Your task to perform on an android device: check google app version Image 0: 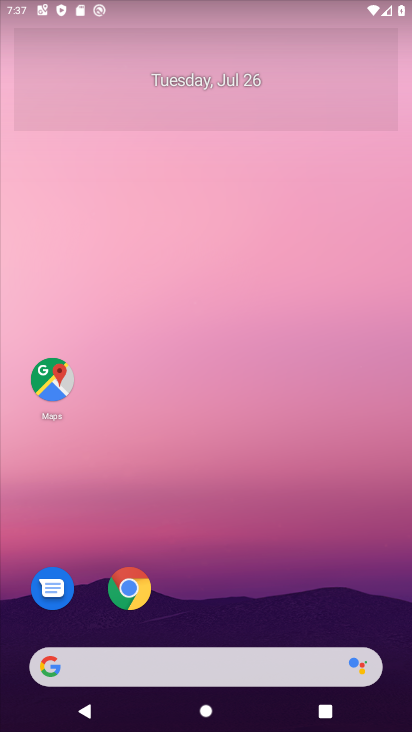
Step 0: click (275, 668)
Your task to perform on an android device: check google app version Image 1: 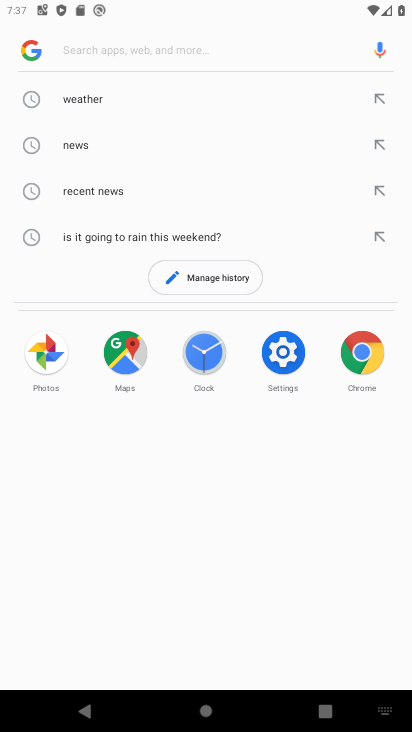
Step 1: click (21, 51)
Your task to perform on an android device: check google app version Image 2: 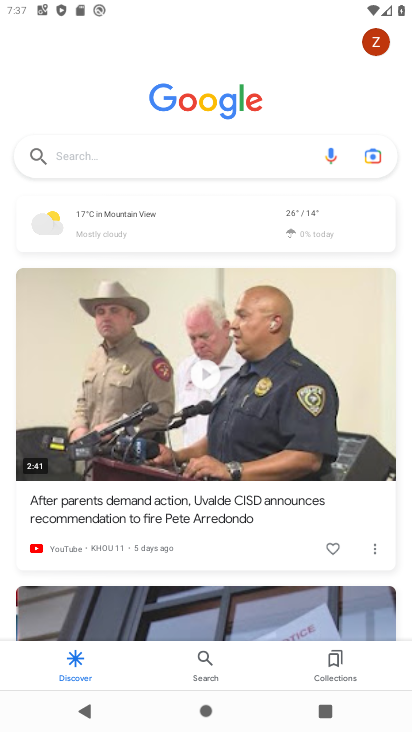
Step 2: click (374, 46)
Your task to perform on an android device: check google app version Image 3: 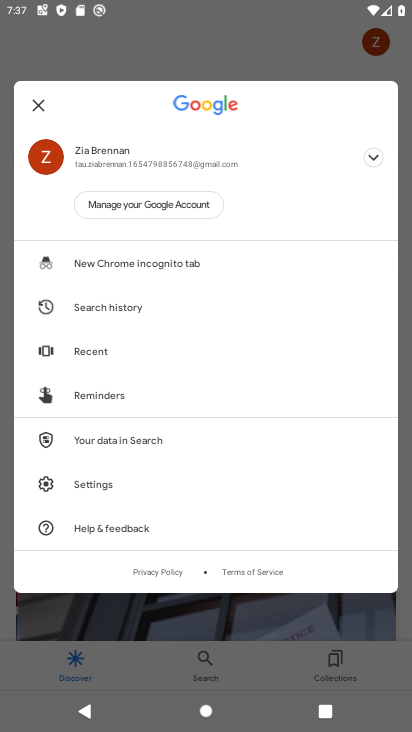
Step 3: click (86, 478)
Your task to perform on an android device: check google app version Image 4: 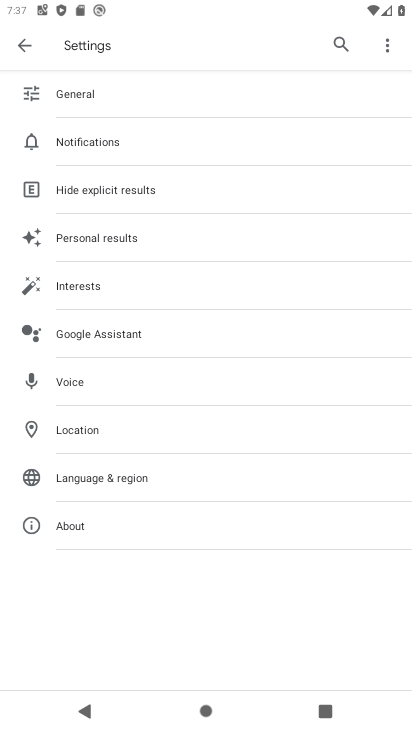
Step 4: click (85, 524)
Your task to perform on an android device: check google app version Image 5: 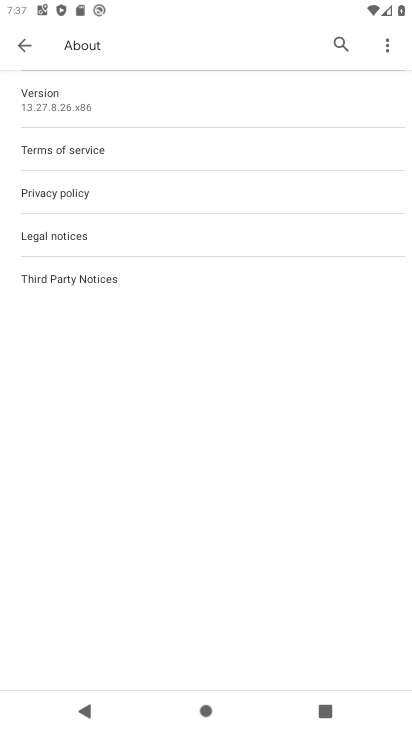
Step 5: task complete